Your task to perform on an android device: search for starred emails in the gmail app Image 0: 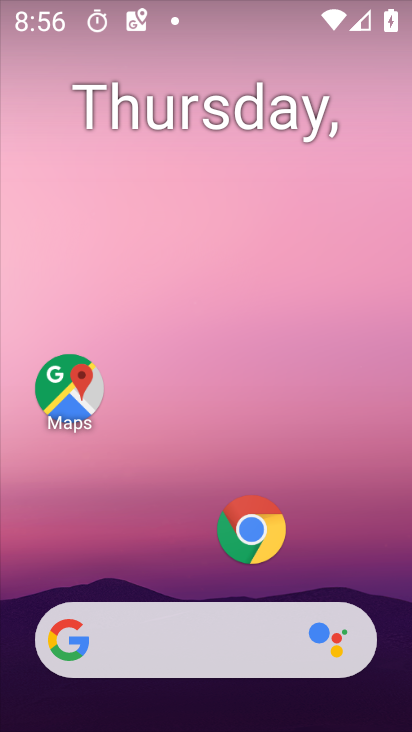
Step 0: drag from (204, 580) to (201, 65)
Your task to perform on an android device: search for starred emails in the gmail app Image 1: 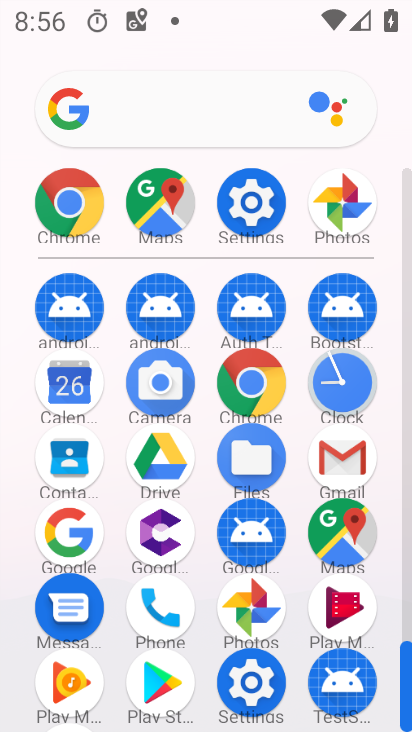
Step 1: click (341, 451)
Your task to perform on an android device: search for starred emails in the gmail app Image 2: 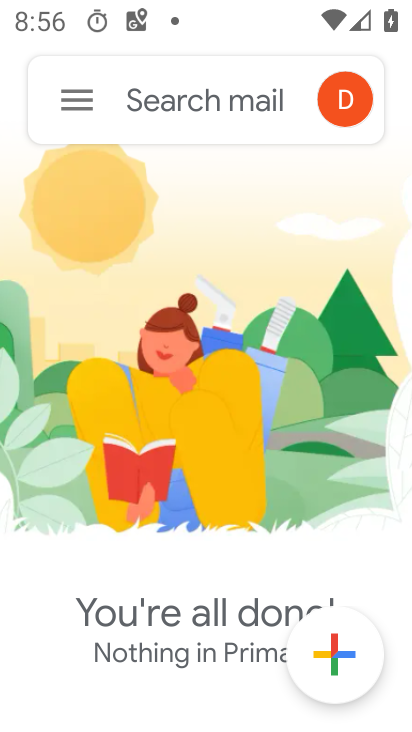
Step 2: click (78, 98)
Your task to perform on an android device: search for starred emails in the gmail app Image 3: 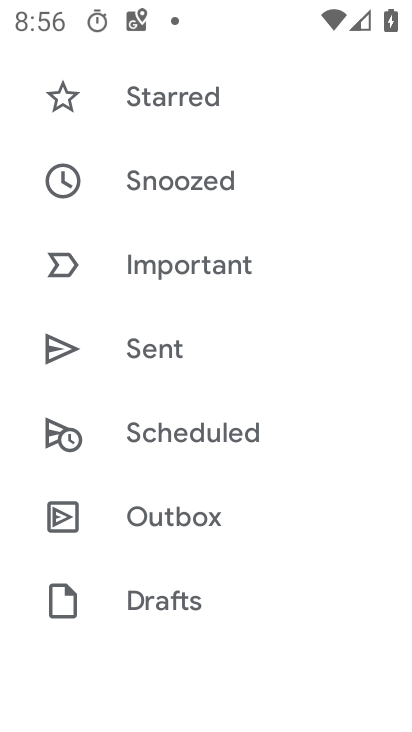
Step 3: click (106, 87)
Your task to perform on an android device: search for starred emails in the gmail app Image 4: 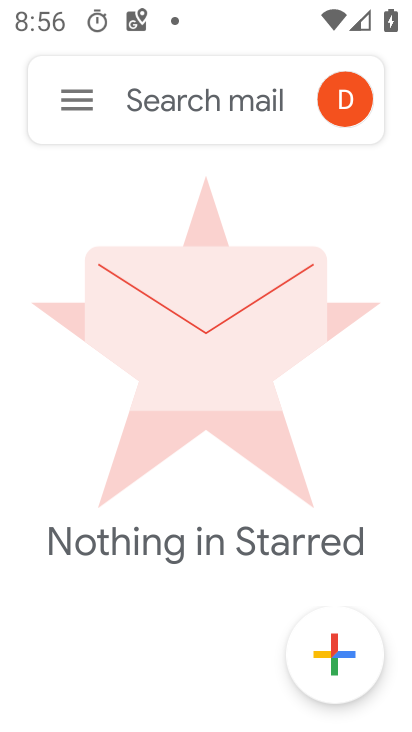
Step 4: task complete